Your task to perform on an android device: turn off wifi Image 0: 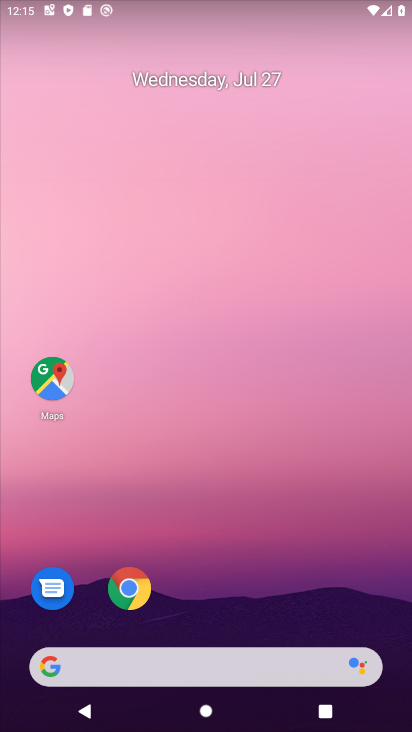
Step 0: click (154, 198)
Your task to perform on an android device: turn off wifi Image 1: 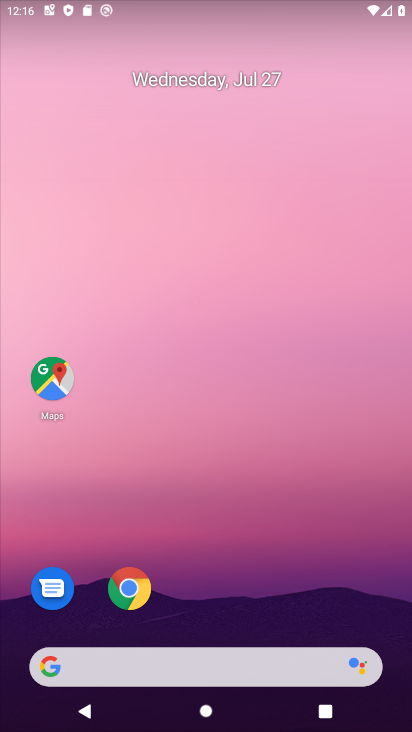
Step 1: drag from (44, 709) to (137, 250)
Your task to perform on an android device: turn off wifi Image 2: 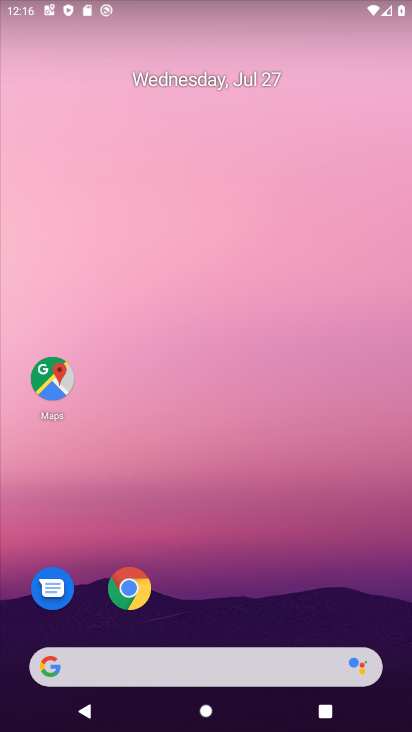
Step 2: drag from (60, 664) to (193, 120)
Your task to perform on an android device: turn off wifi Image 3: 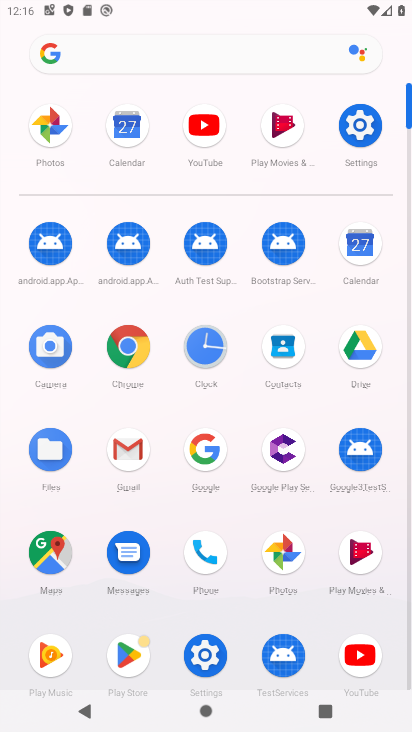
Step 3: click (192, 666)
Your task to perform on an android device: turn off wifi Image 4: 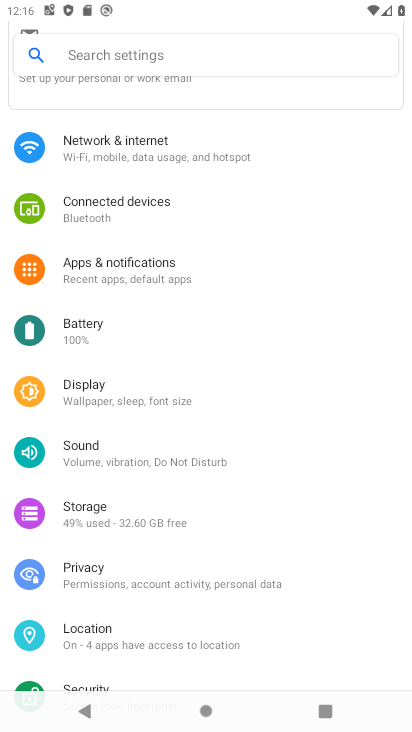
Step 4: click (150, 137)
Your task to perform on an android device: turn off wifi Image 5: 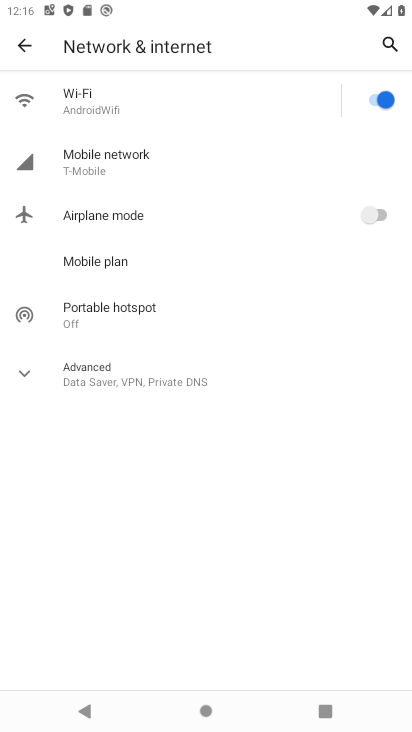
Step 5: task complete